Your task to perform on an android device: open app "Venmo" Image 0: 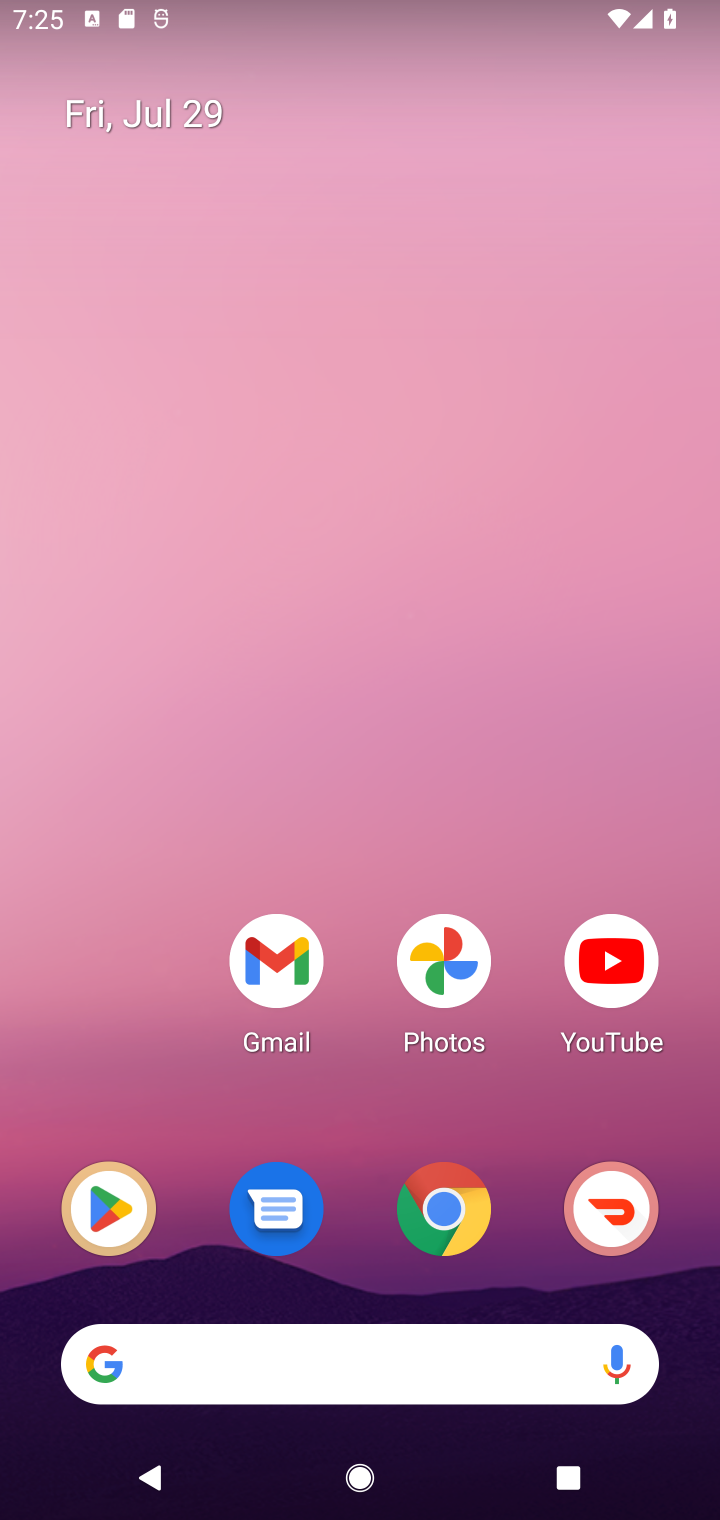
Step 0: click (118, 1223)
Your task to perform on an android device: open app "Venmo" Image 1: 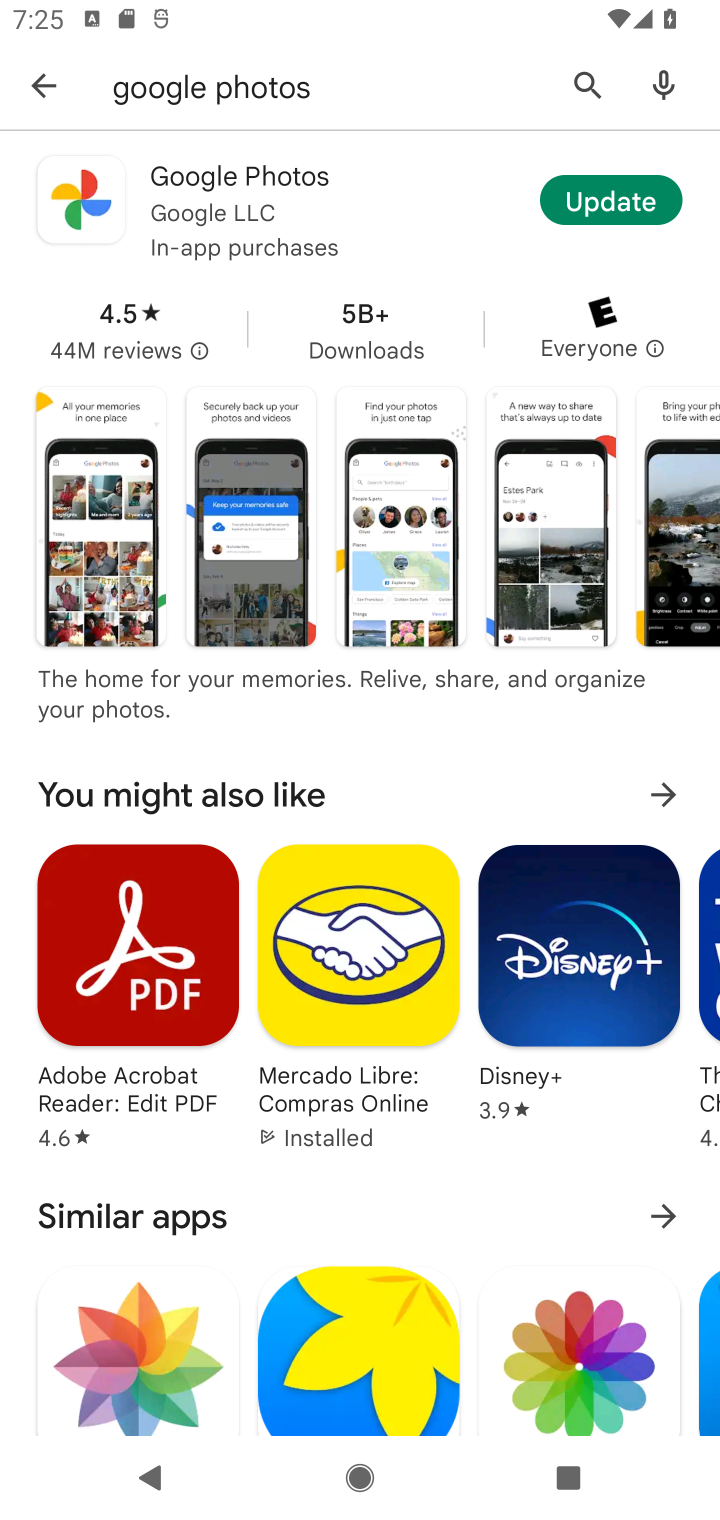
Step 1: click (576, 78)
Your task to perform on an android device: open app "Venmo" Image 2: 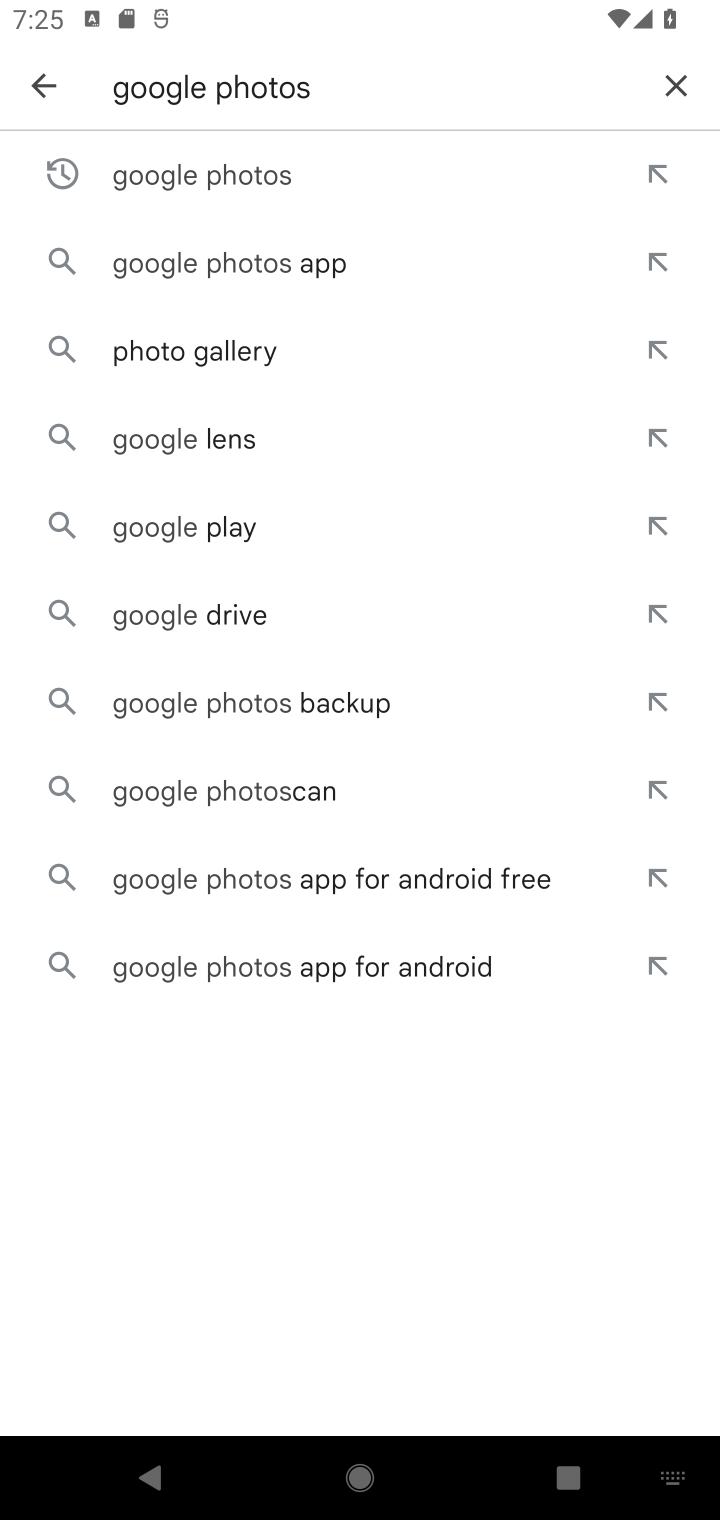
Step 2: click (669, 93)
Your task to perform on an android device: open app "Venmo" Image 3: 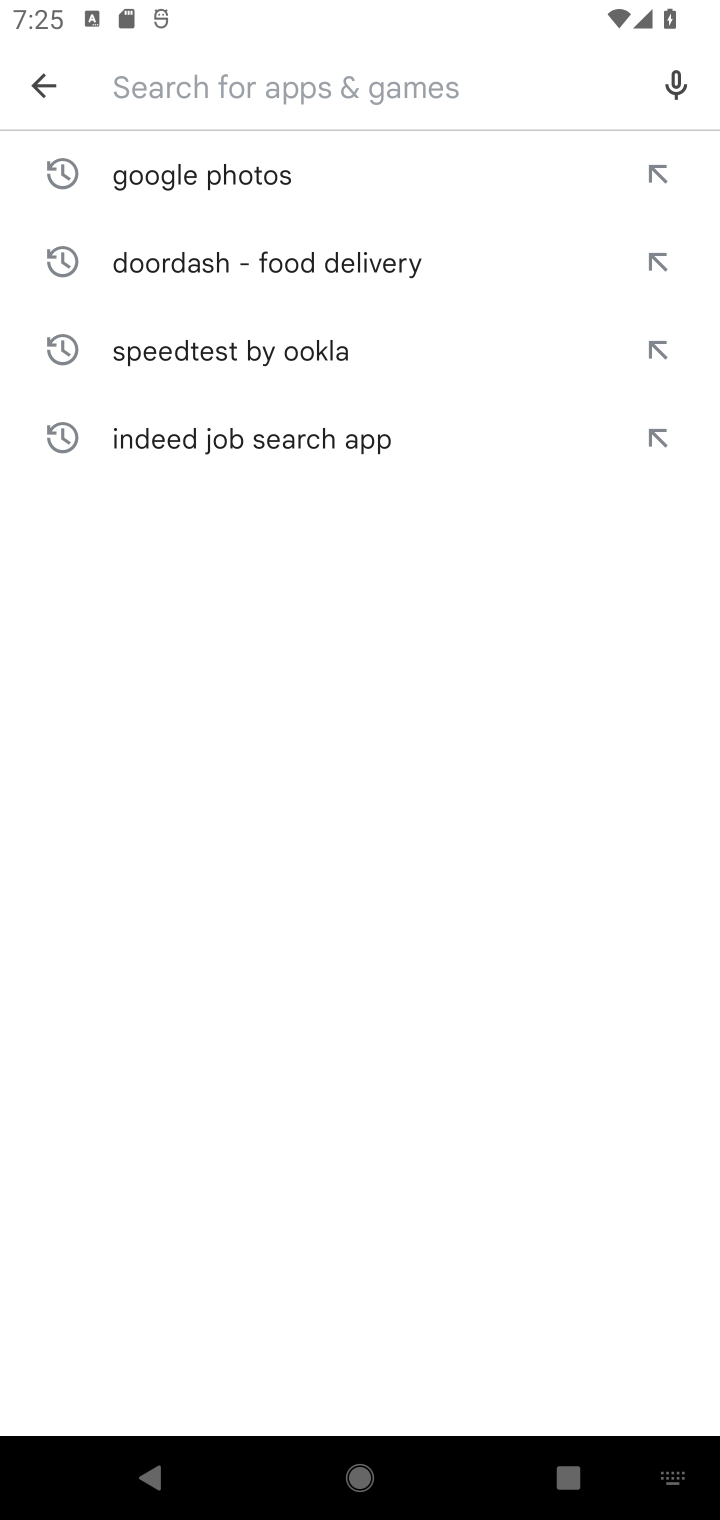
Step 3: type "Venmo"
Your task to perform on an android device: open app "Venmo" Image 4: 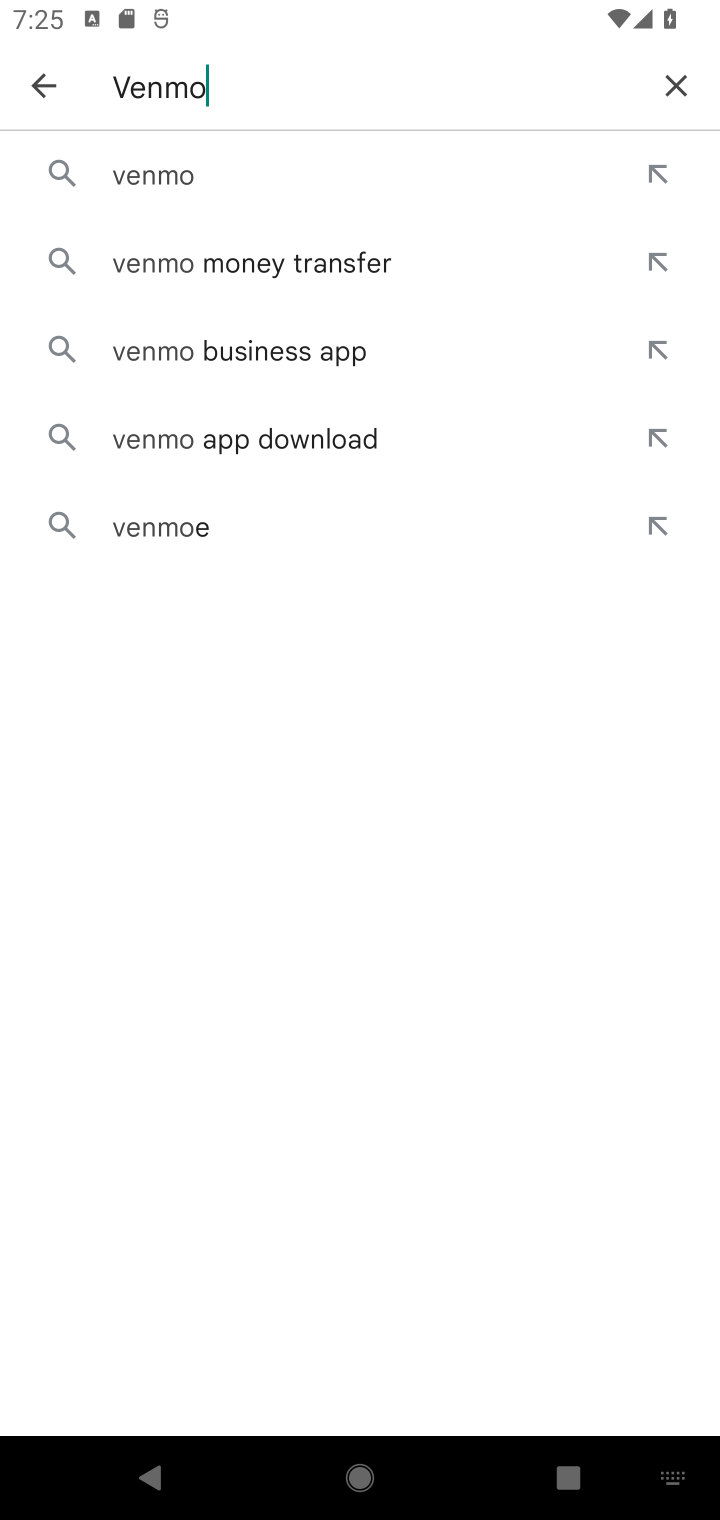
Step 4: click (175, 186)
Your task to perform on an android device: open app "Venmo" Image 5: 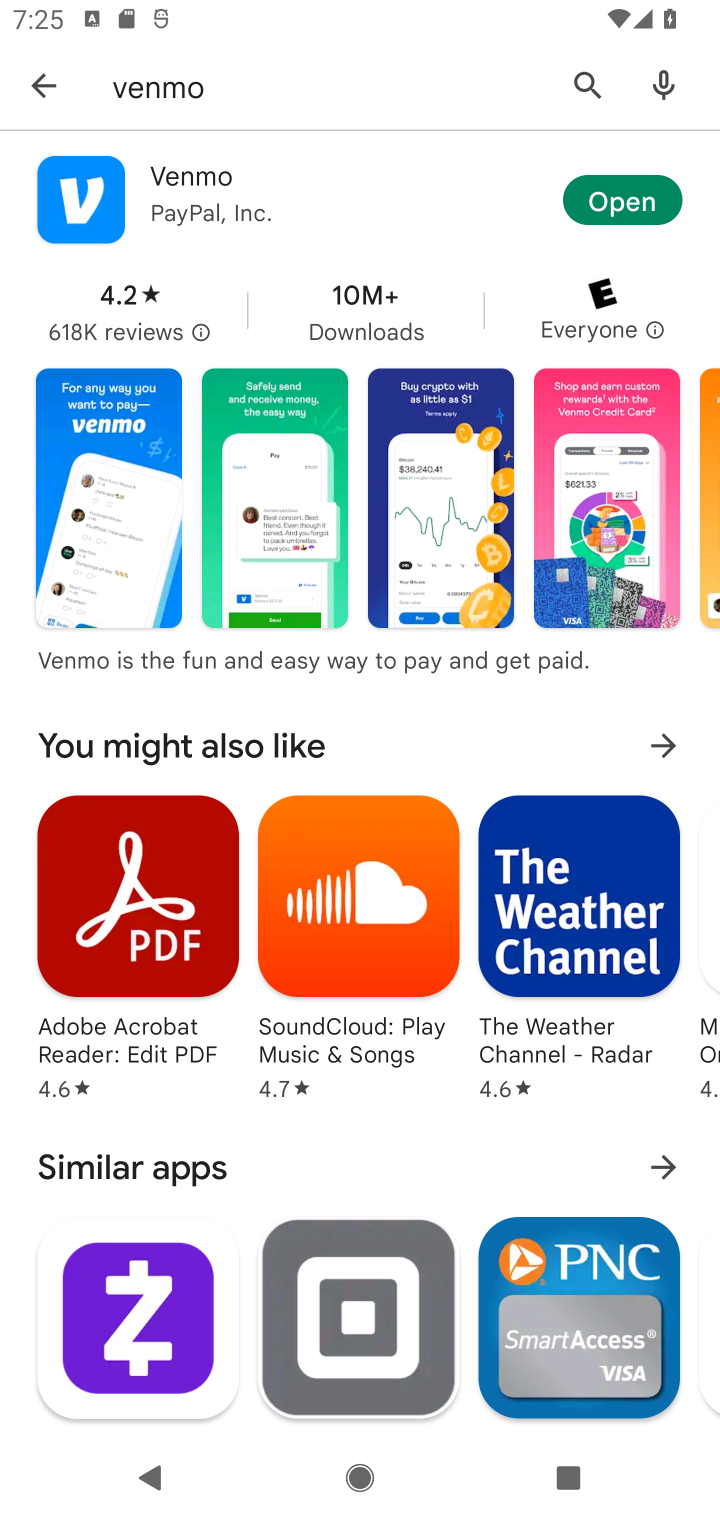
Step 5: click (632, 210)
Your task to perform on an android device: open app "Venmo" Image 6: 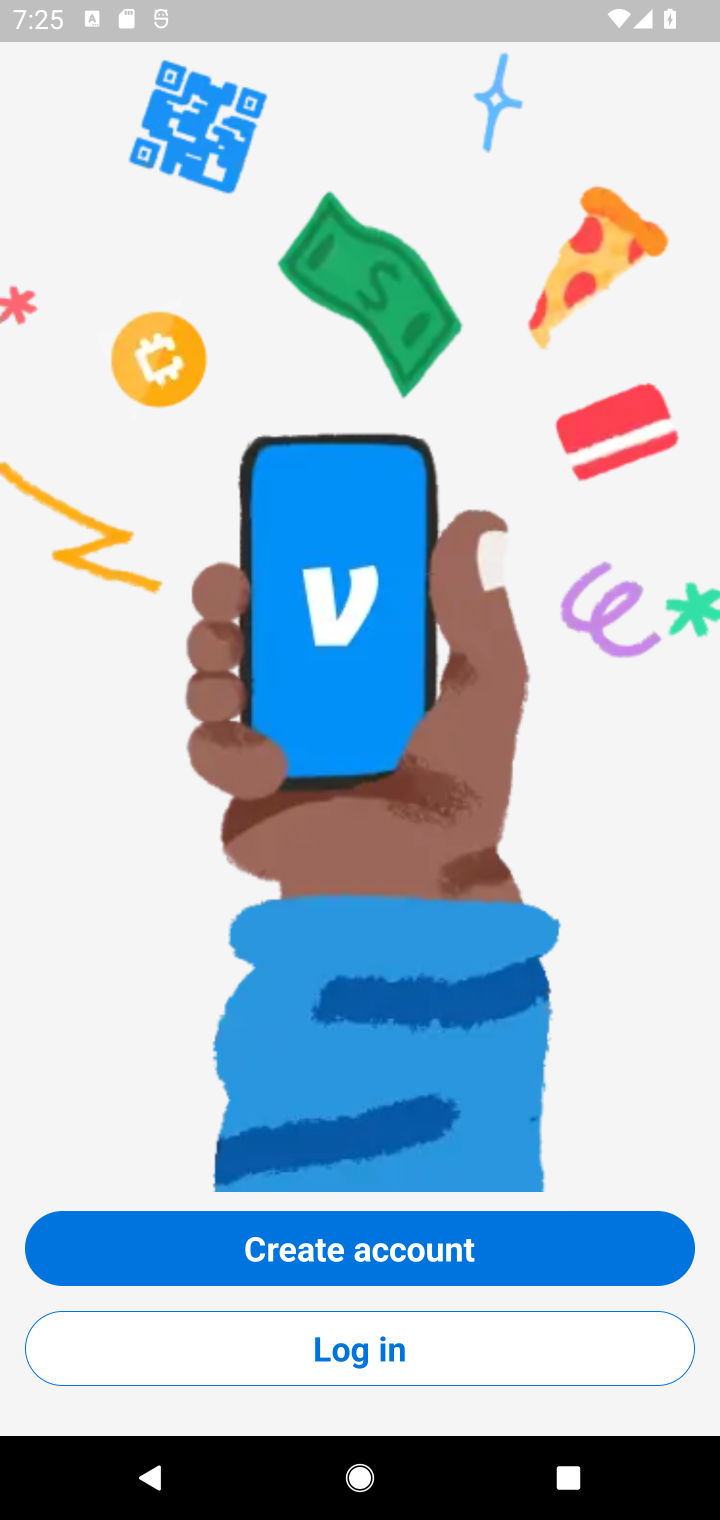
Step 6: task complete